Your task to perform on an android device: Go to network settings Image 0: 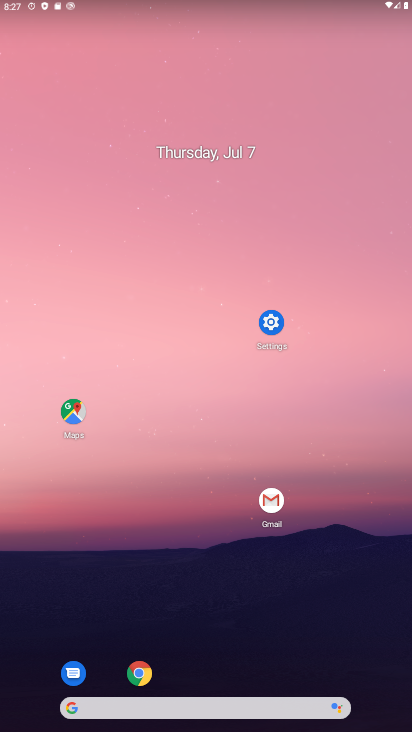
Step 0: click (266, 320)
Your task to perform on an android device: Go to network settings Image 1: 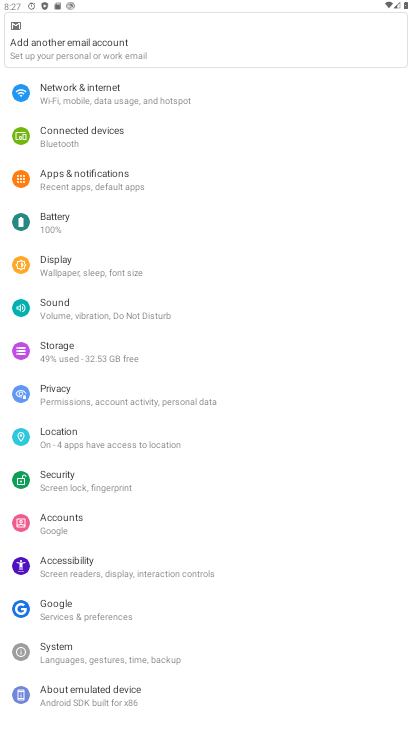
Step 1: drag from (287, 112) to (279, 479)
Your task to perform on an android device: Go to network settings Image 2: 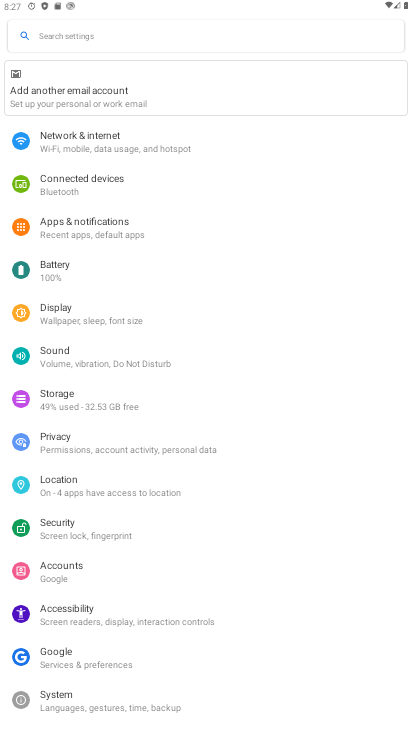
Step 2: click (89, 147)
Your task to perform on an android device: Go to network settings Image 3: 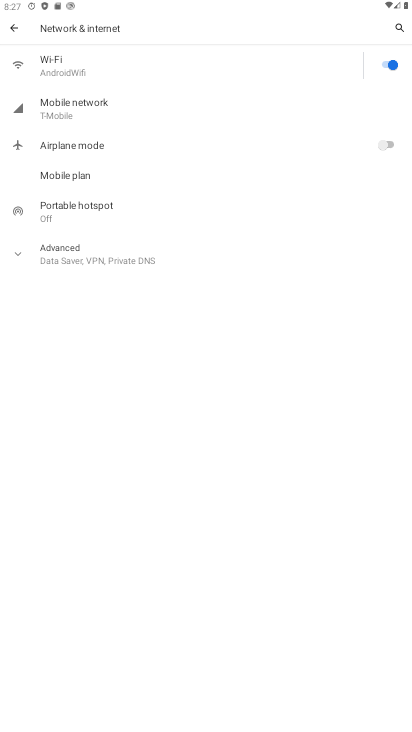
Step 3: click (56, 107)
Your task to perform on an android device: Go to network settings Image 4: 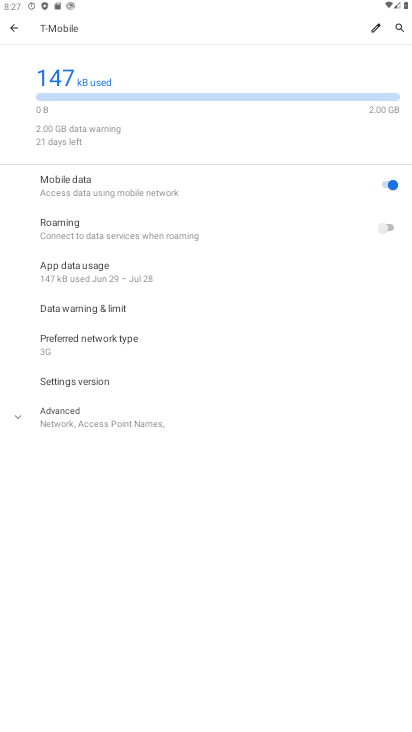
Step 4: task complete